Your task to perform on an android device: Open the map Image 0: 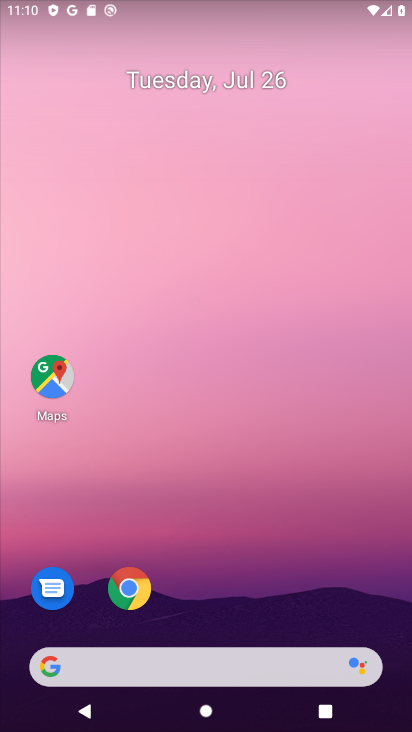
Step 0: press home button
Your task to perform on an android device: Open the map Image 1: 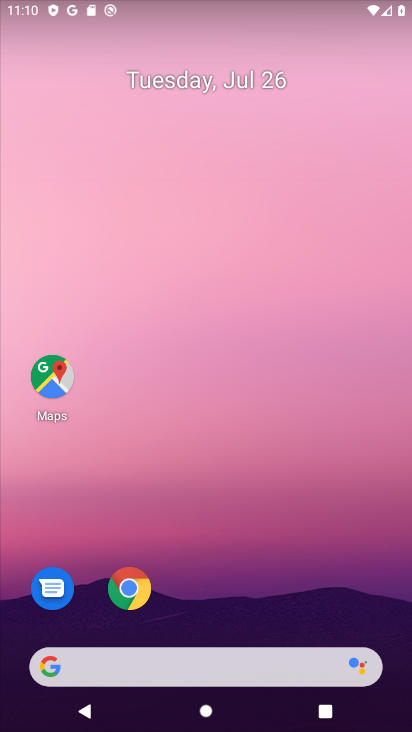
Step 1: click (50, 381)
Your task to perform on an android device: Open the map Image 2: 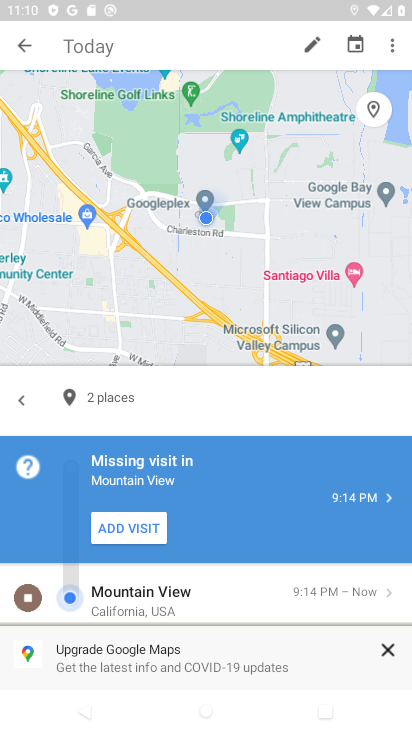
Step 2: click (386, 643)
Your task to perform on an android device: Open the map Image 3: 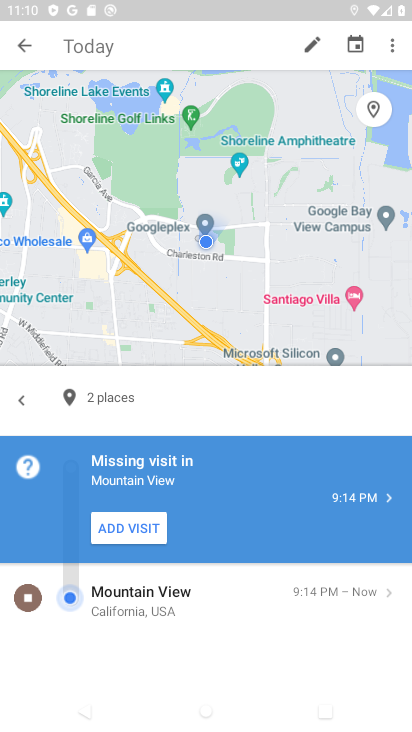
Step 3: click (27, 44)
Your task to perform on an android device: Open the map Image 4: 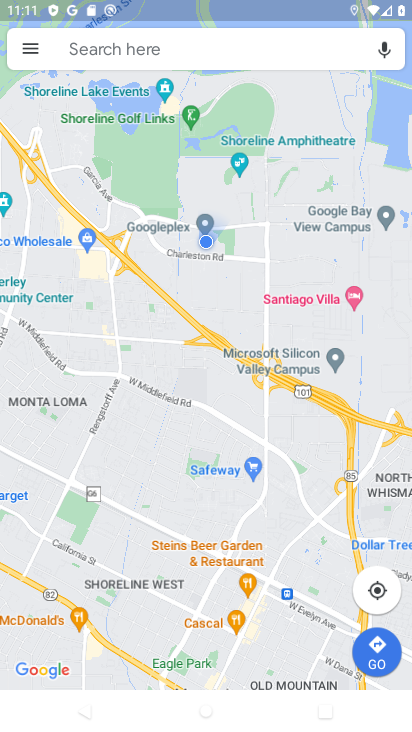
Step 4: task complete